Your task to perform on an android device: turn smart compose on in the gmail app Image 0: 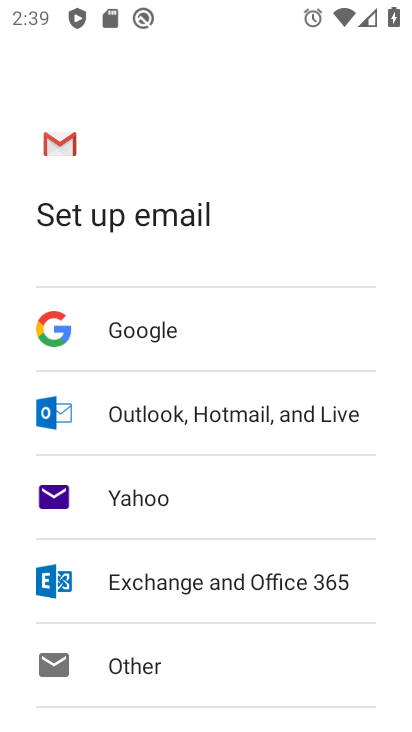
Step 0: press home button
Your task to perform on an android device: turn smart compose on in the gmail app Image 1: 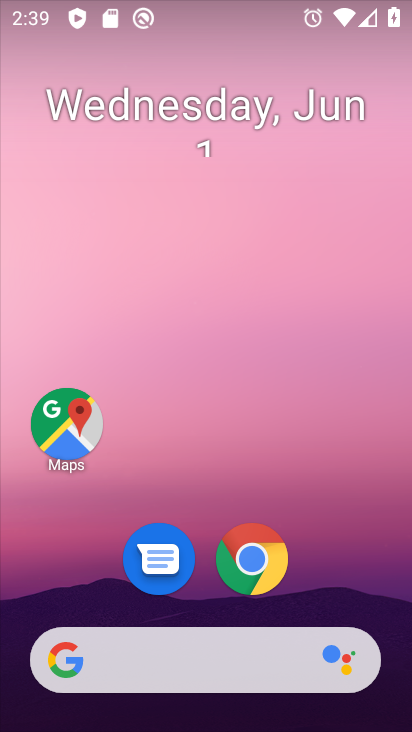
Step 1: drag from (321, 596) to (242, 38)
Your task to perform on an android device: turn smart compose on in the gmail app Image 2: 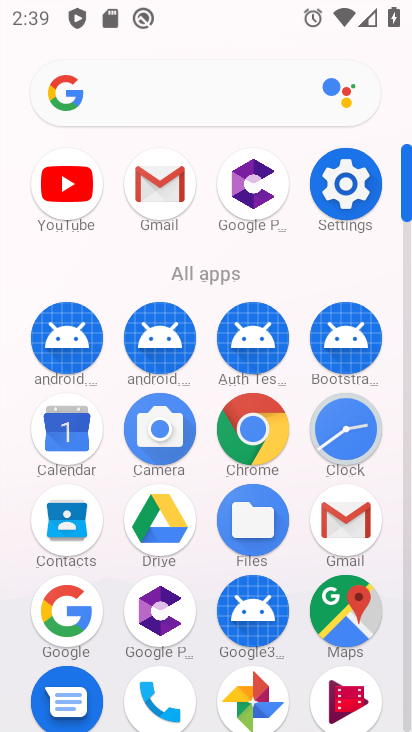
Step 2: click (353, 506)
Your task to perform on an android device: turn smart compose on in the gmail app Image 3: 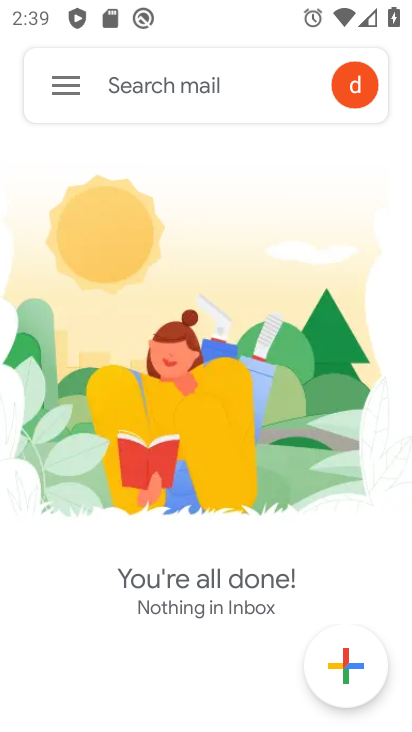
Step 3: click (67, 90)
Your task to perform on an android device: turn smart compose on in the gmail app Image 4: 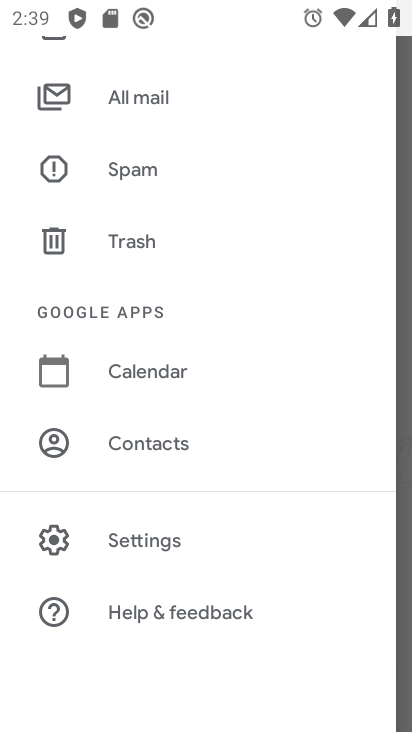
Step 4: click (183, 542)
Your task to perform on an android device: turn smart compose on in the gmail app Image 5: 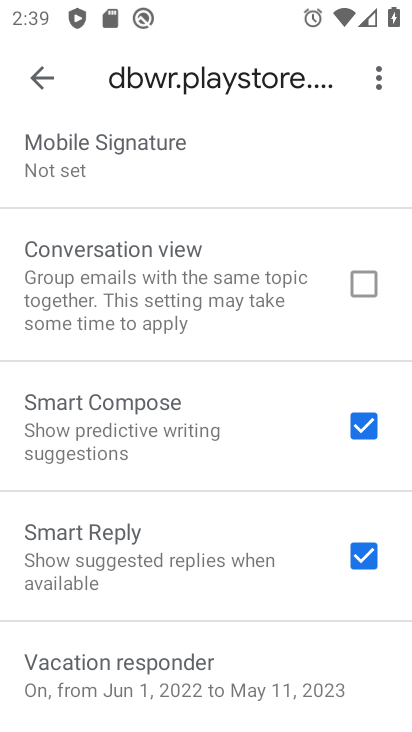
Step 5: task complete